Your task to perform on an android device: turn off picture-in-picture Image 0: 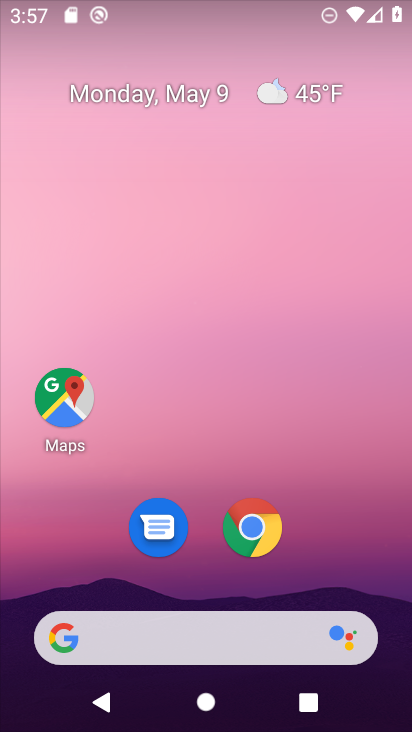
Step 0: drag from (334, 559) to (320, 225)
Your task to perform on an android device: turn off picture-in-picture Image 1: 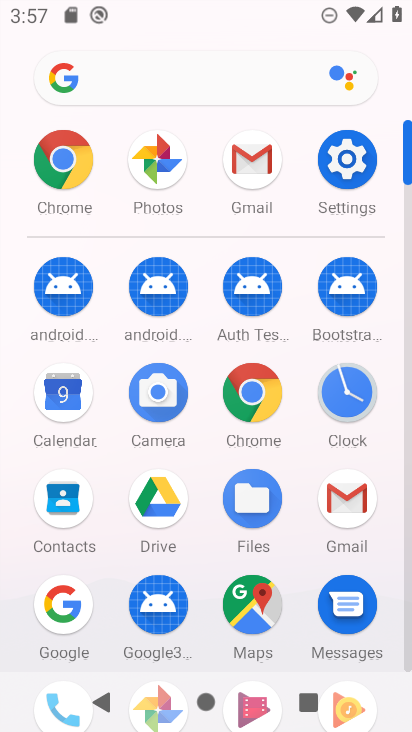
Step 1: click (274, 395)
Your task to perform on an android device: turn off picture-in-picture Image 2: 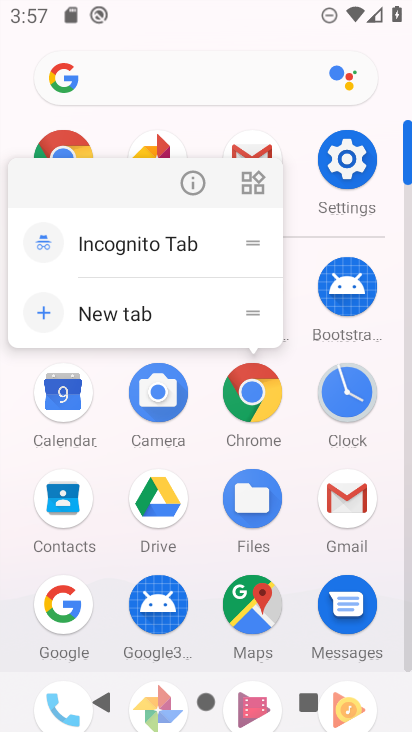
Step 2: click (196, 184)
Your task to perform on an android device: turn off picture-in-picture Image 3: 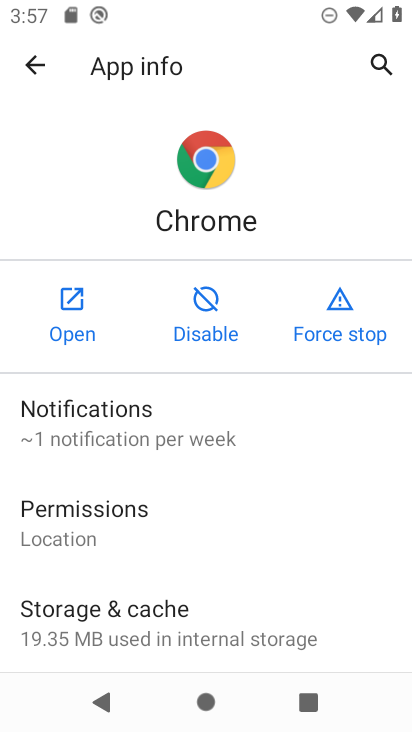
Step 3: drag from (229, 564) to (258, 49)
Your task to perform on an android device: turn off picture-in-picture Image 4: 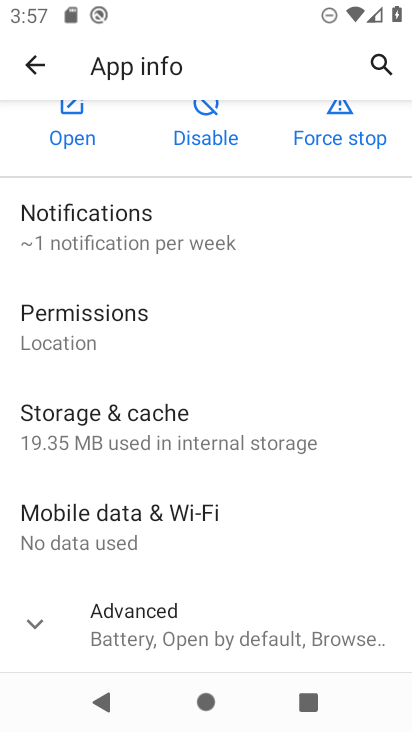
Step 4: click (281, 635)
Your task to perform on an android device: turn off picture-in-picture Image 5: 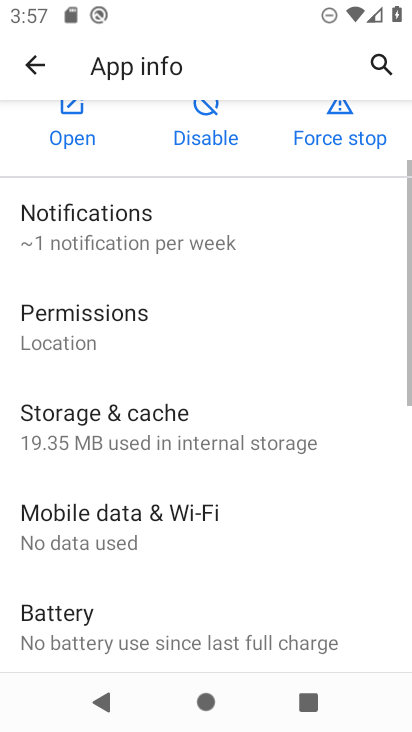
Step 5: drag from (281, 635) to (265, 177)
Your task to perform on an android device: turn off picture-in-picture Image 6: 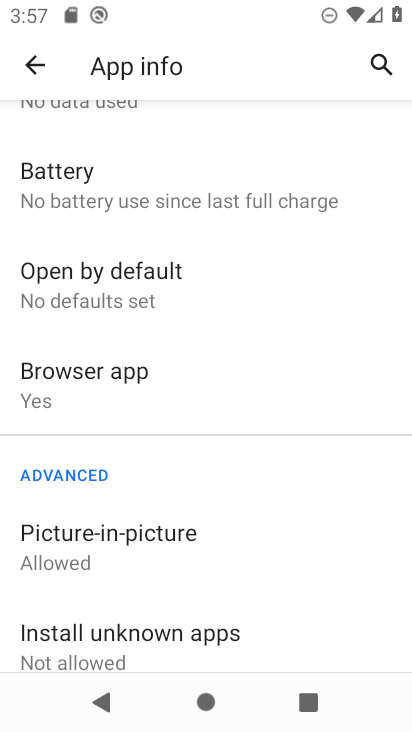
Step 6: click (263, 554)
Your task to perform on an android device: turn off picture-in-picture Image 7: 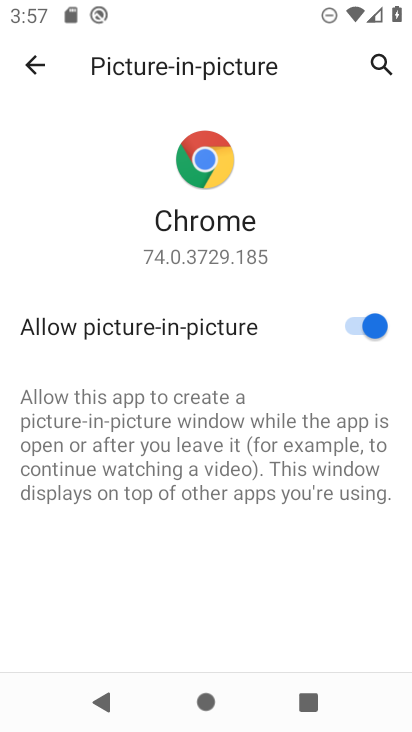
Step 7: click (358, 321)
Your task to perform on an android device: turn off picture-in-picture Image 8: 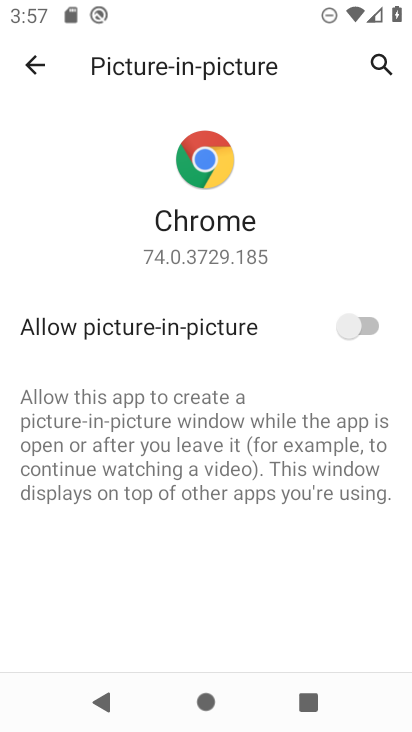
Step 8: task complete